Your task to perform on an android device: Open my contact list Image 0: 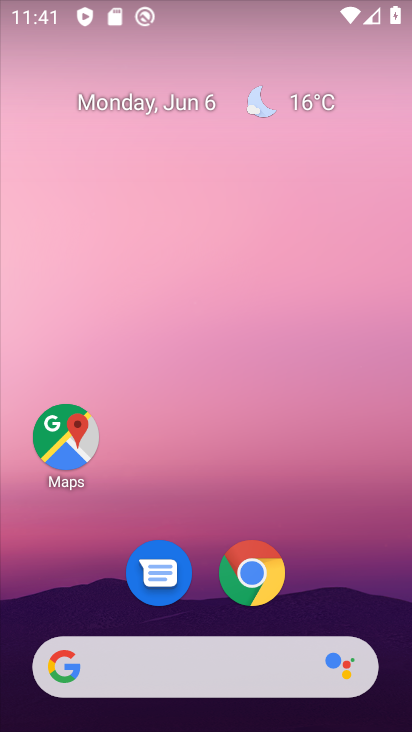
Step 0: drag from (336, 484) to (204, 5)
Your task to perform on an android device: Open my contact list Image 1: 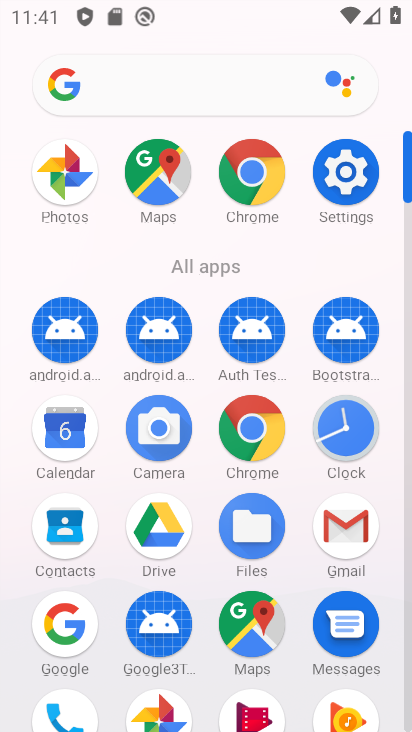
Step 1: click (58, 516)
Your task to perform on an android device: Open my contact list Image 2: 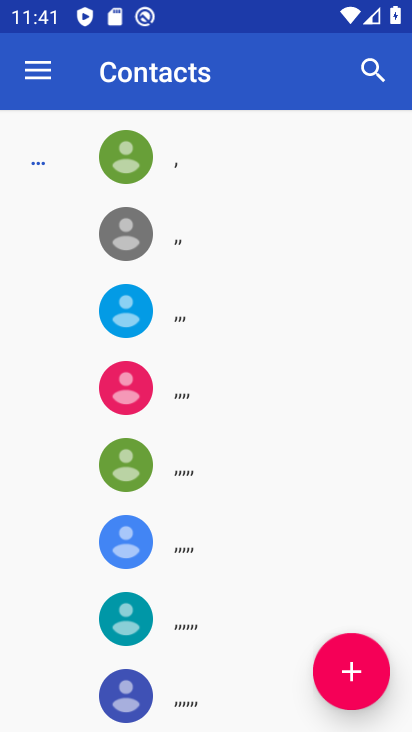
Step 2: click (309, 694)
Your task to perform on an android device: Open my contact list Image 3: 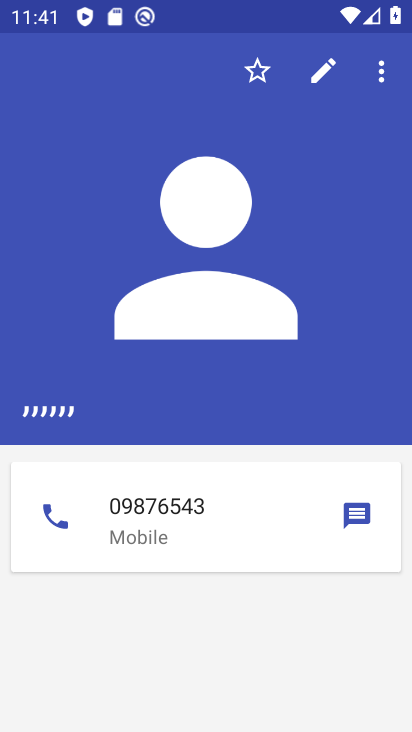
Step 3: press back button
Your task to perform on an android device: Open my contact list Image 4: 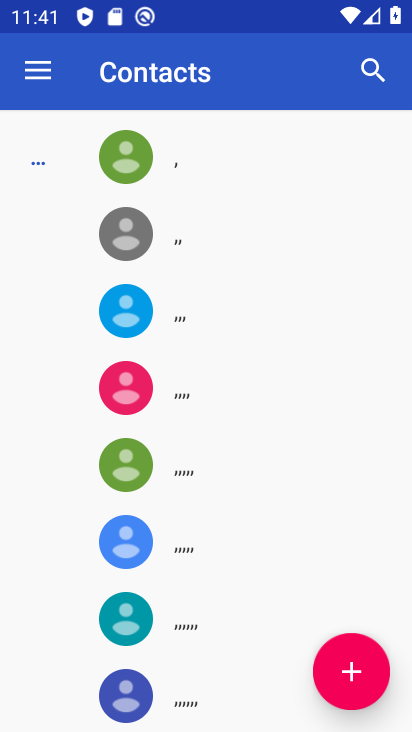
Step 4: click (365, 678)
Your task to perform on an android device: Open my contact list Image 5: 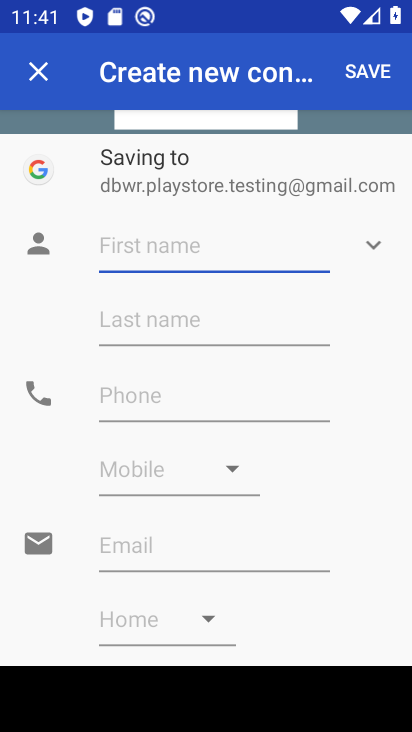
Step 5: click (41, 61)
Your task to perform on an android device: Open my contact list Image 6: 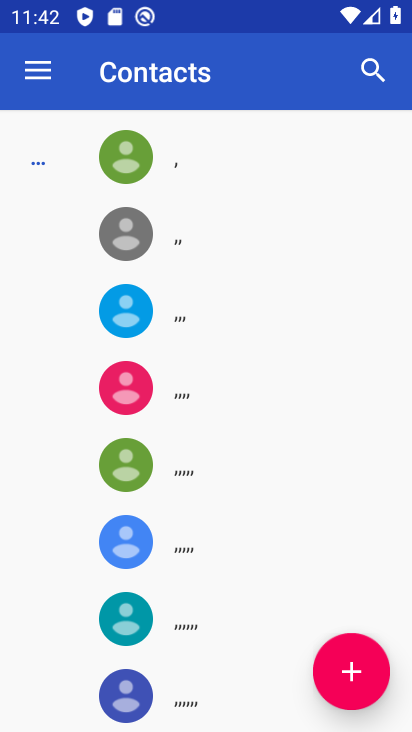
Step 6: task complete